Your task to perform on an android device: see creations saved in the google photos Image 0: 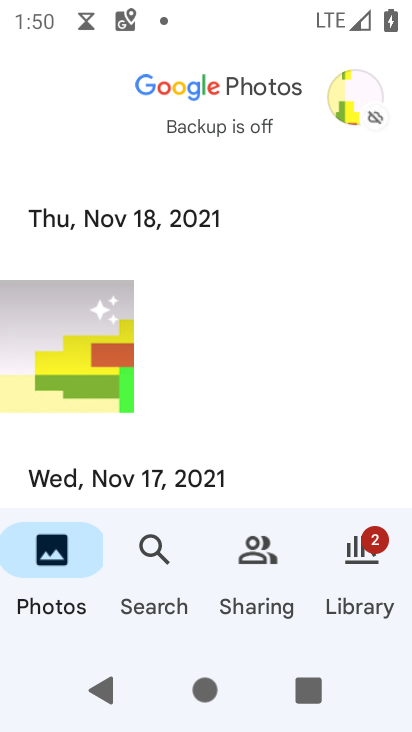
Step 0: click (162, 551)
Your task to perform on an android device: see creations saved in the google photos Image 1: 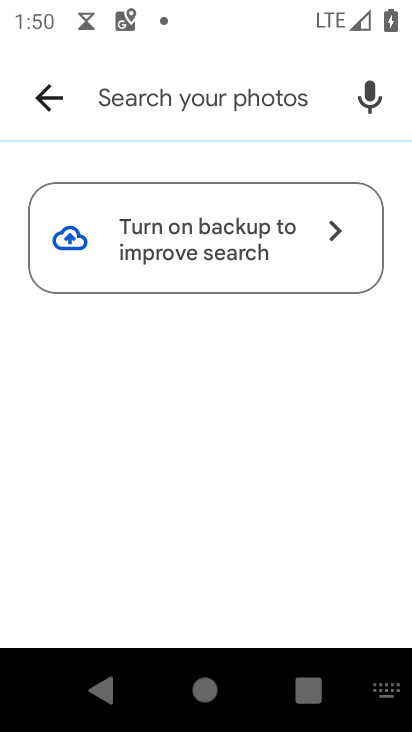
Step 1: drag from (280, 516) to (323, 114)
Your task to perform on an android device: see creations saved in the google photos Image 2: 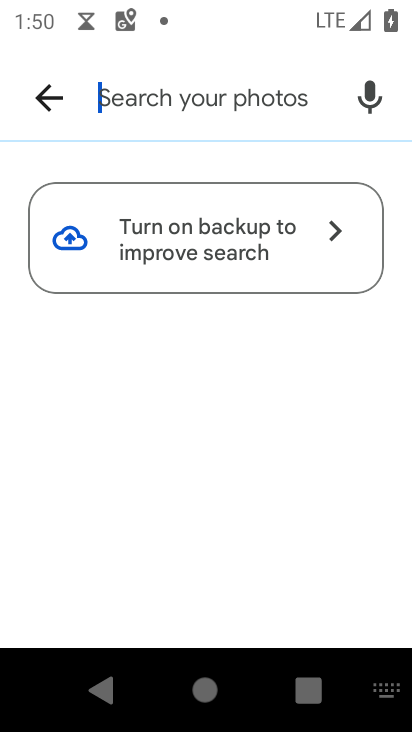
Step 2: drag from (246, 456) to (255, 103)
Your task to perform on an android device: see creations saved in the google photos Image 3: 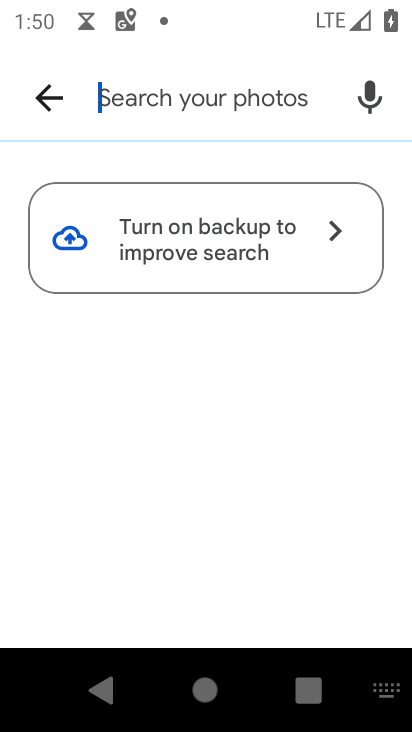
Step 3: click (52, 96)
Your task to perform on an android device: see creations saved in the google photos Image 4: 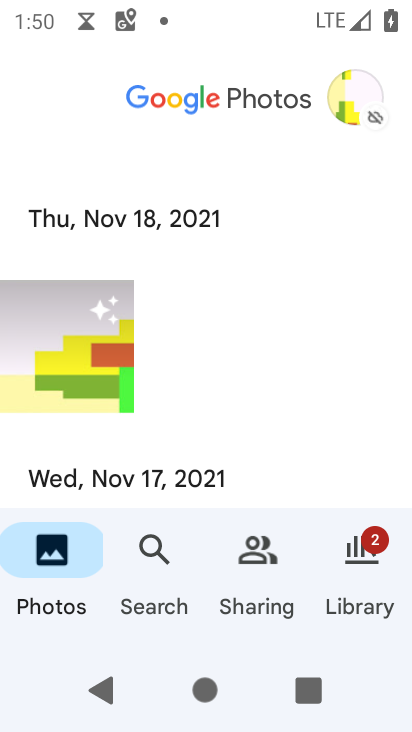
Step 4: click (151, 554)
Your task to perform on an android device: see creations saved in the google photos Image 5: 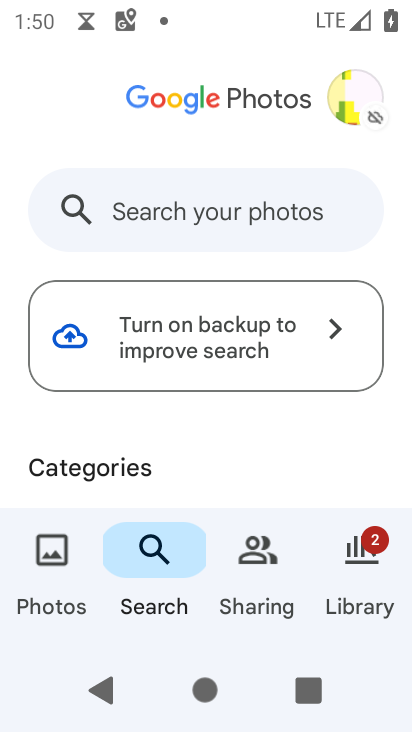
Step 5: drag from (219, 386) to (223, 127)
Your task to perform on an android device: see creations saved in the google photos Image 6: 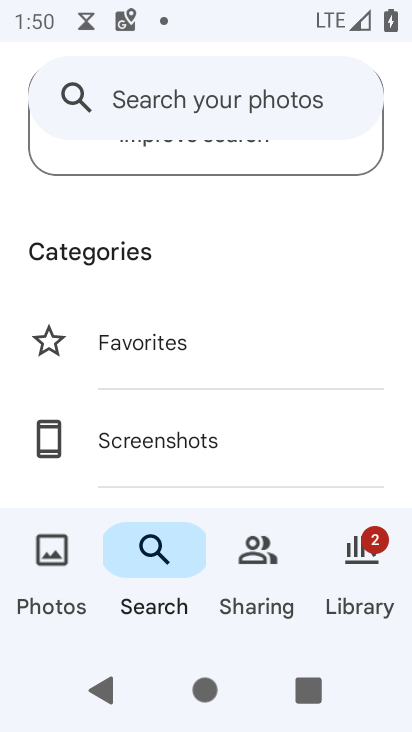
Step 6: drag from (218, 445) to (291, 139)
Your task to perform on an android device: see creations saved in the google photos Image 7: 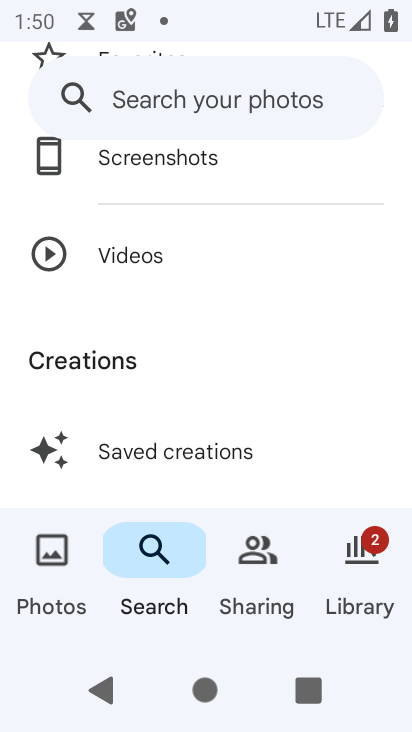
Step 7: click (202, 463)
Your task to perform on an android device: see creations saved in the google photos Image 8: 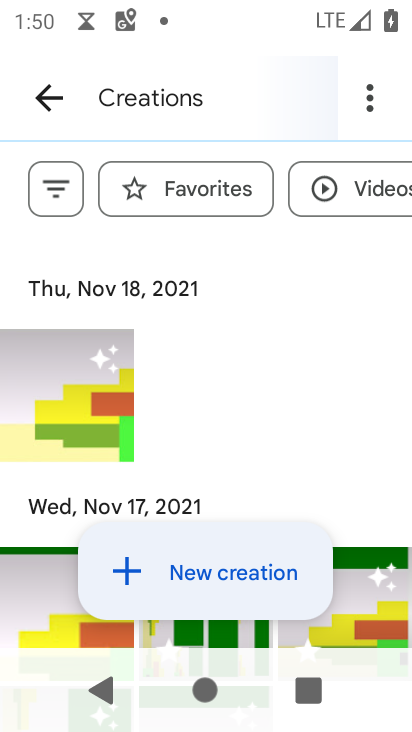
Step 8: task complete